Your task to perform on an android device: Do I have any events tomorrow? Image 0: 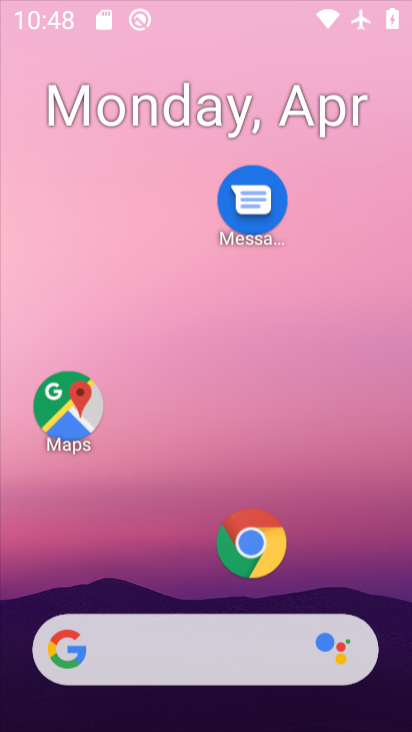
Step 0: drag from (186, 518) to (182, 181)
Your task to perform on an android device: Do I have any events tomorrow? Image 1: 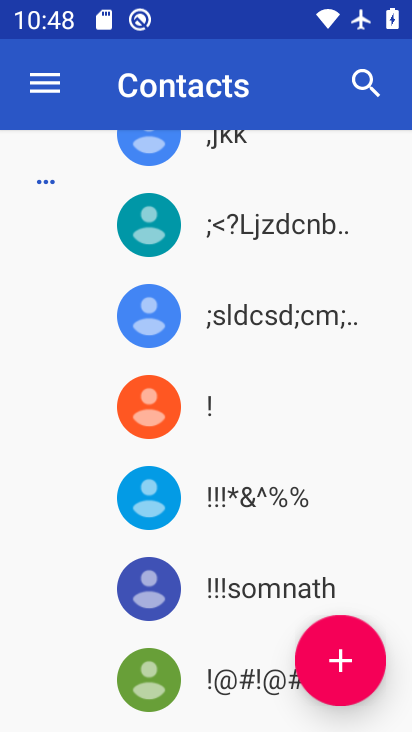
Step 1: press home button
Your task to perform on an android device: Do I have any events tomorrow? Image 2: 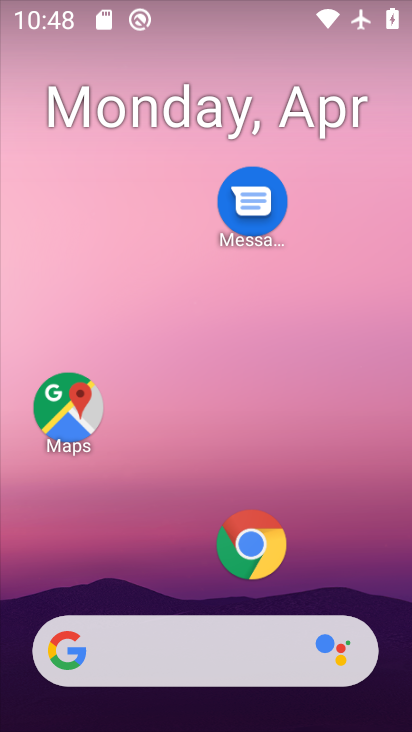
Step 2: drag from (199, 584) to (216, 137)
Your task to perform on an android device: Do I have any events tomorrow? Image 3: 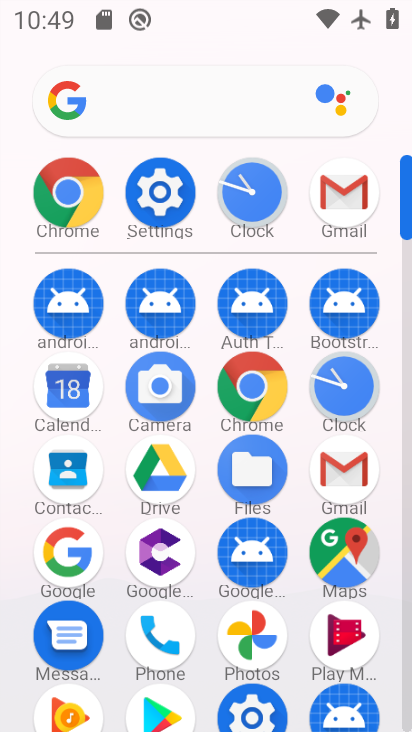
Step 3: click (67, 388)
Your task to perform on an android device: Do I have any events tomorrow? Image 4: 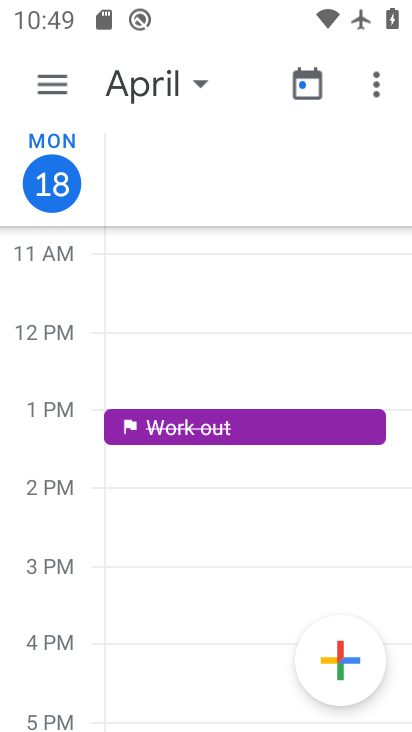
Step 4: click (63, 191)
Your task to perform on an android device: Do I have any events tomorrow? Image 5: 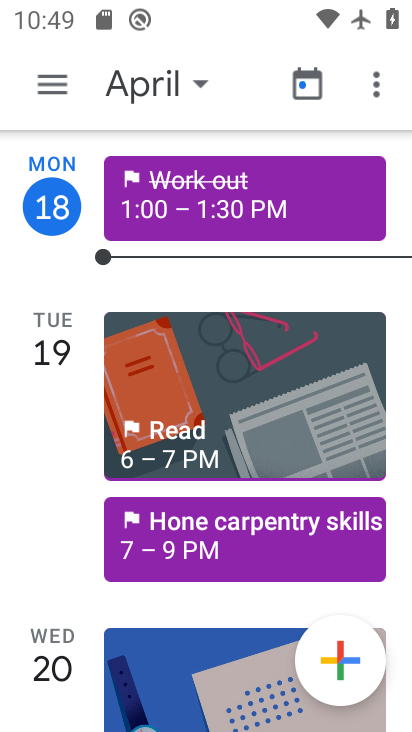
Step 5: click (62, 346)
Your task to perform on an android device: Do I have any events tomorrow? Image 6: 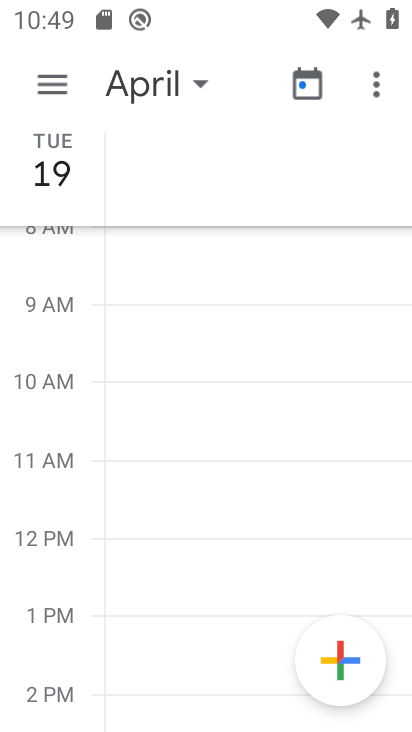
Step 6: task complete